Your task to perform on an android device: see tabs open on other devices in the chrome app Image 0: 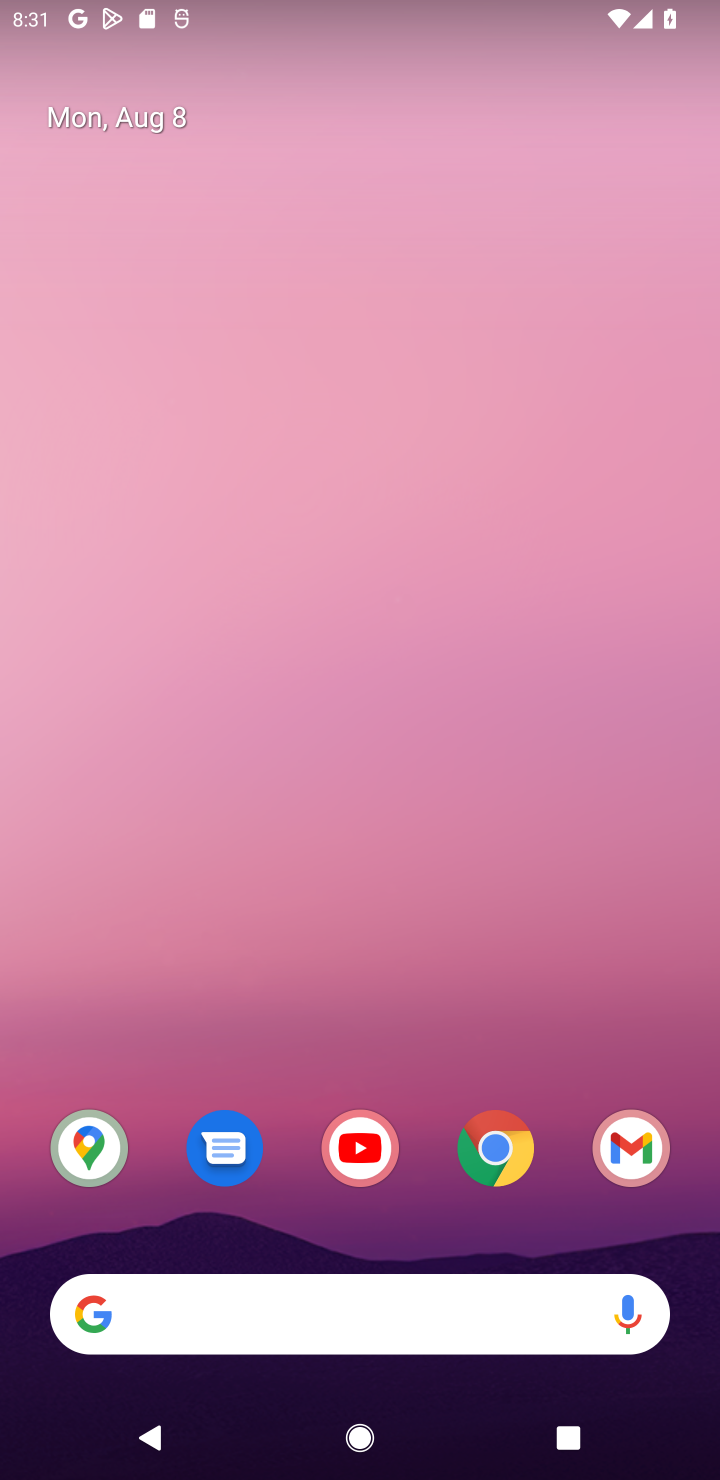
Step 0: click (508, 1167)
Your task to perform on an android device: see tabs open on other devices in the chrome app Image 1: 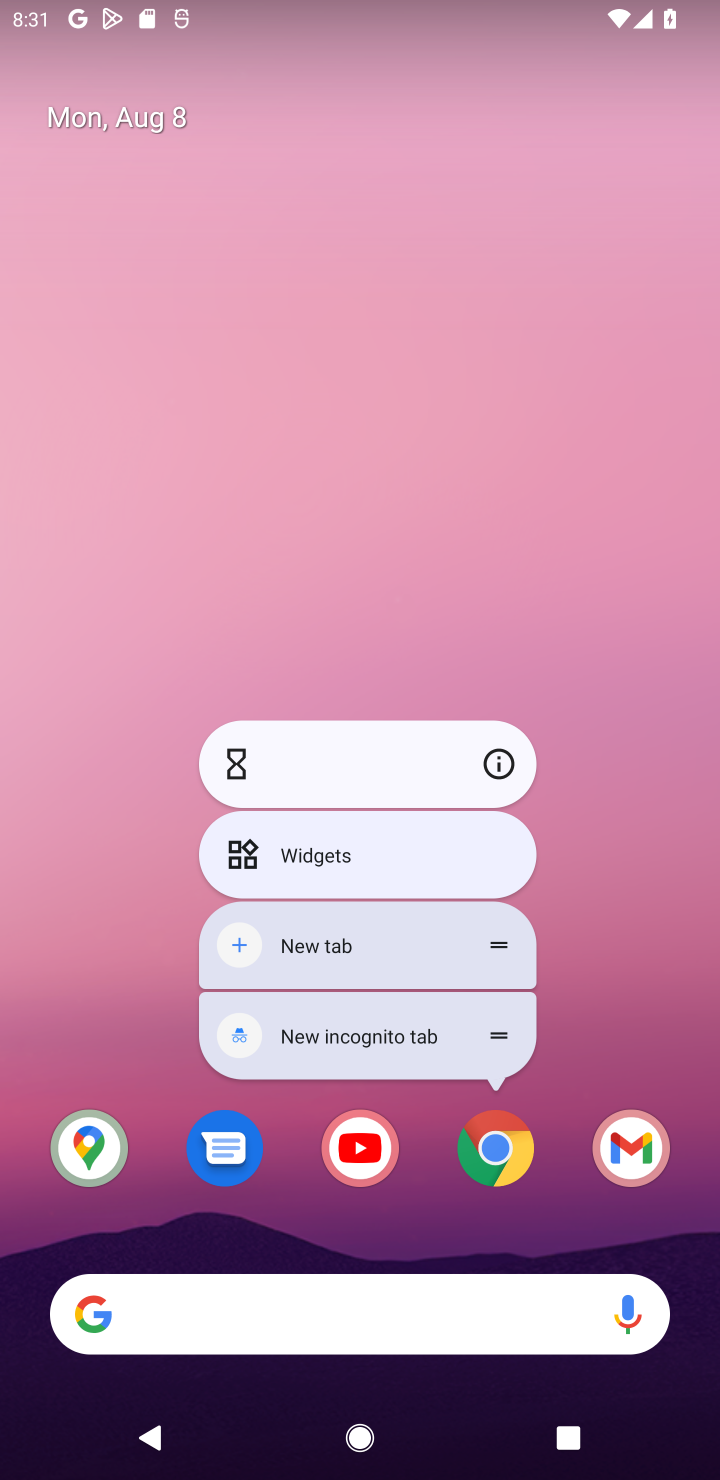
Step 1: click (508, 1167)
Your task to perform on an android device: see tabs open on other devices in the chrome app Image 2: 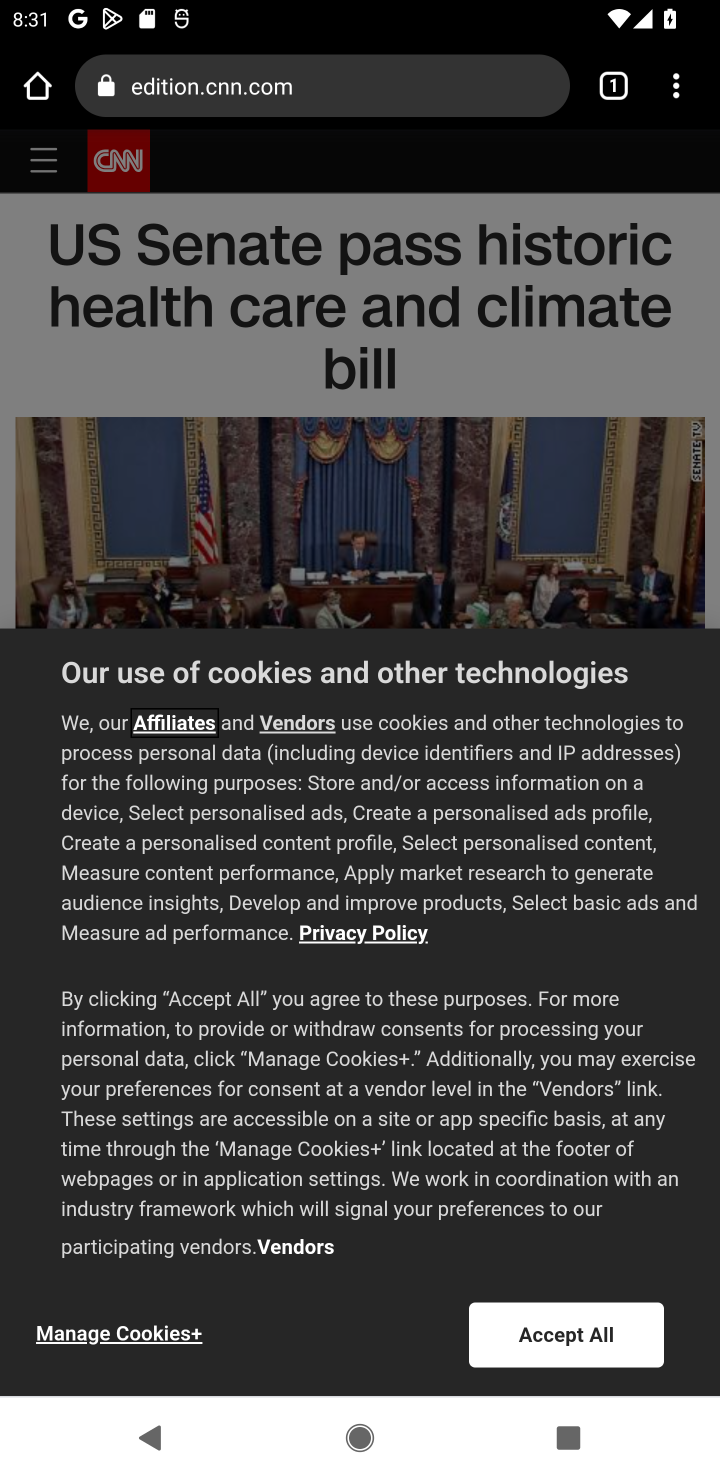
Step 2: task complete